Your task to perform on an android device: Go to location settings Image 0: 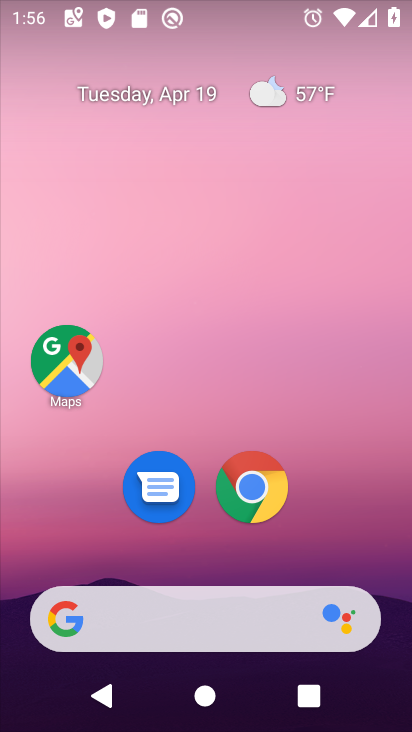
Step 0: click (253, 473)
Your task to perform on an android device: Go to location settings Image 1: 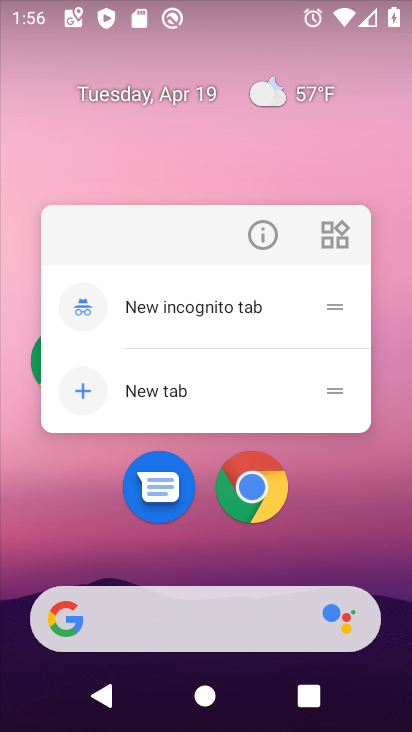
Step 1: click (279, 474)
Your task to perform on an android device: Go to location settings Image 2: 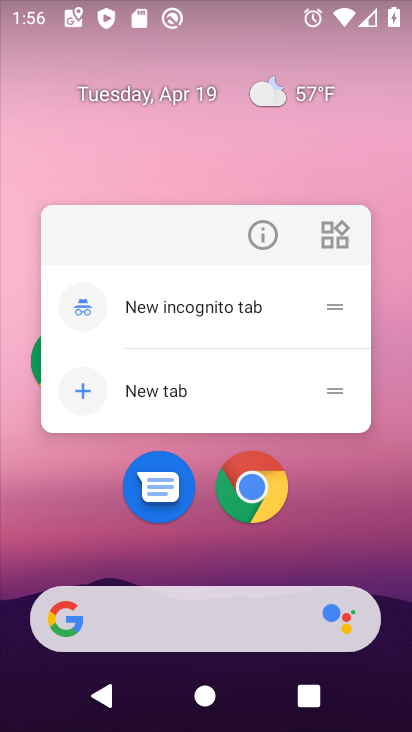
Step 2: drag from (335, 499) to (347, 159)
Your task to perform on an android device: Go to location settings Image 3: 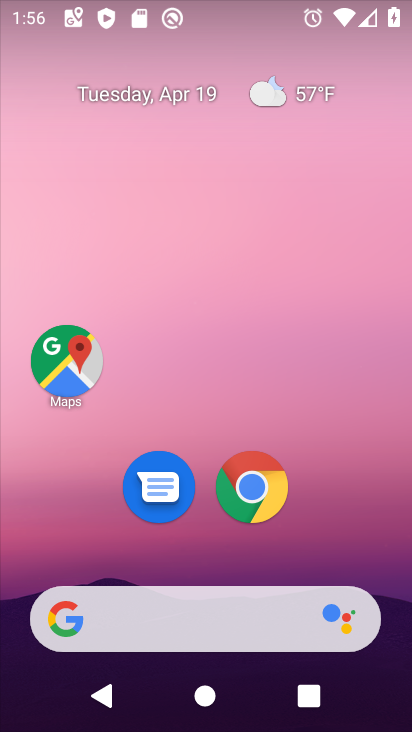
Step 3: drag from (355, 540) to (362, 129)
Your task to perform on an android device: Go to location settings Image 4: 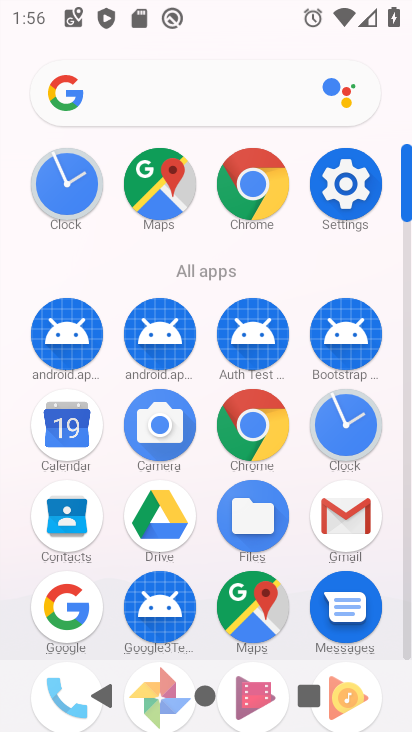
Step 4: click (353, 179)
Your task to perform on an android device: Go to location settings Image 5: 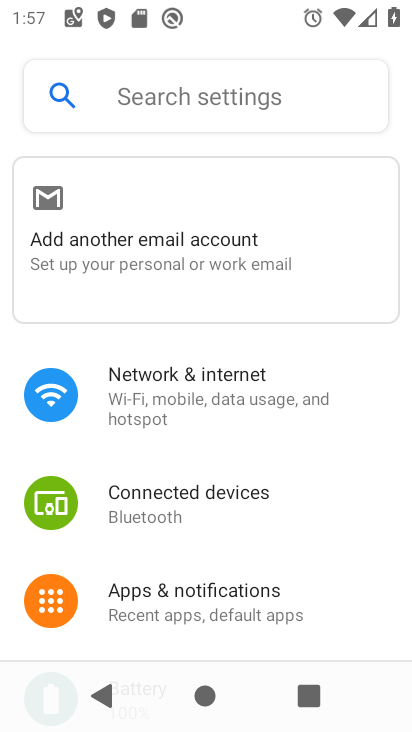
Step 5: drag from (311, 584) to (326, 218)
Your task to perform on an android device: Go to location settings Image 6: 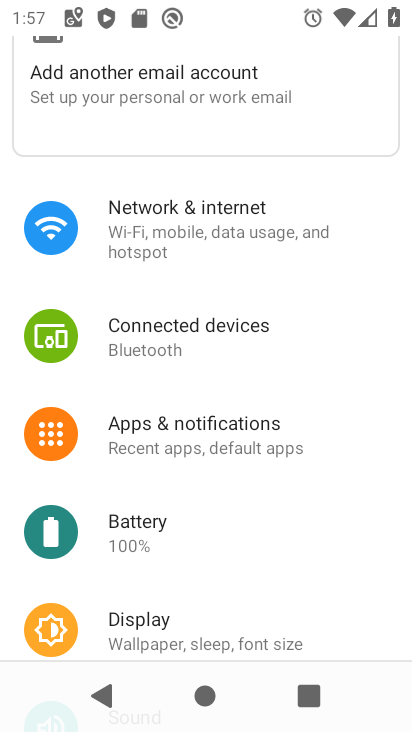
Step 6: drag from (333, 470) to (326, 215)
Your task to perform on an android device: Go to location settings Image 7: 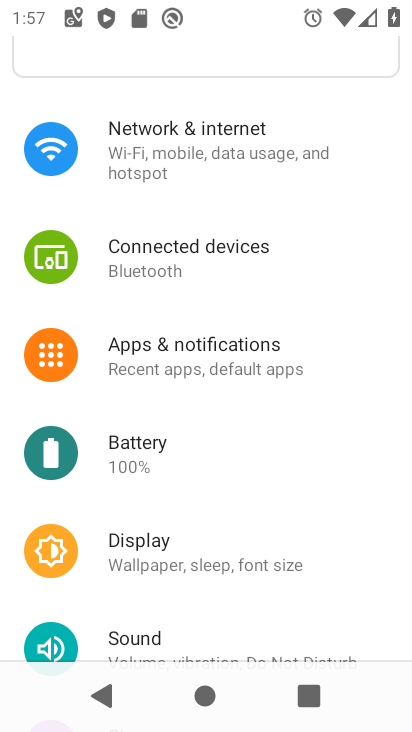
Step 7: drag from (272, 568) to (273, 282)
Your task to perform on an android device: Go to location settings Image 8: 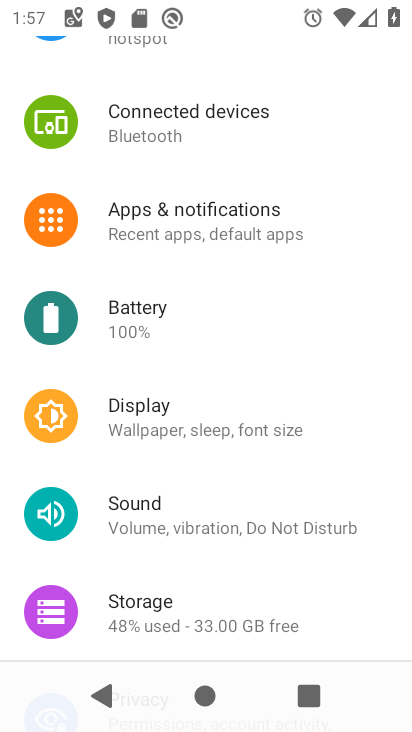
Step 8: drag from (243, 572) to (272, 291)
Your task to perform on an android device: Go to location settings Image 9: 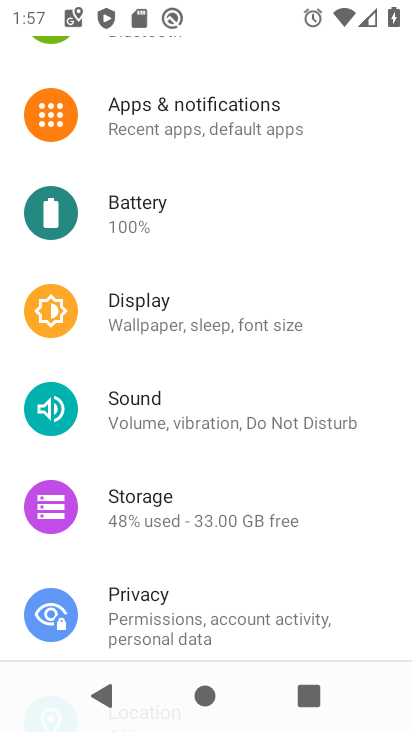
Step 9: drag from (250, 570) to (297, 197)
Your task to perform on an android device: Go to location settings Image 10: 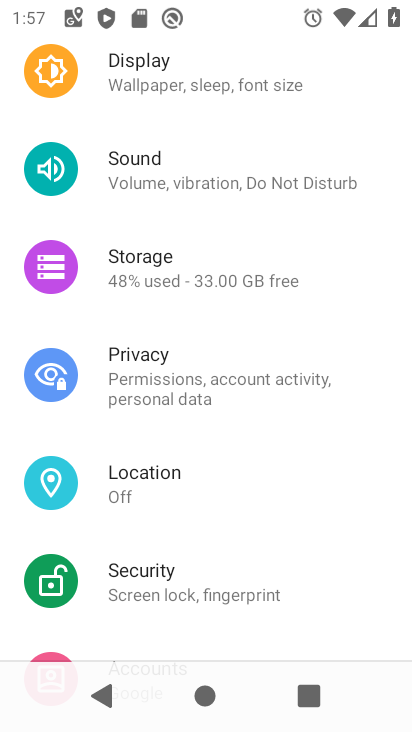
Step 10: click (152, 503)
Your task to perform on an android device: Go to location settings Image 11: 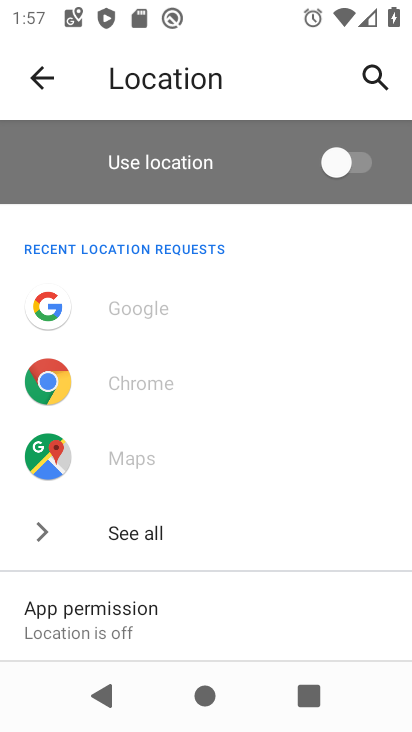
Step 11: task complete